Your task to perform on an android device: turn off location Image 0: 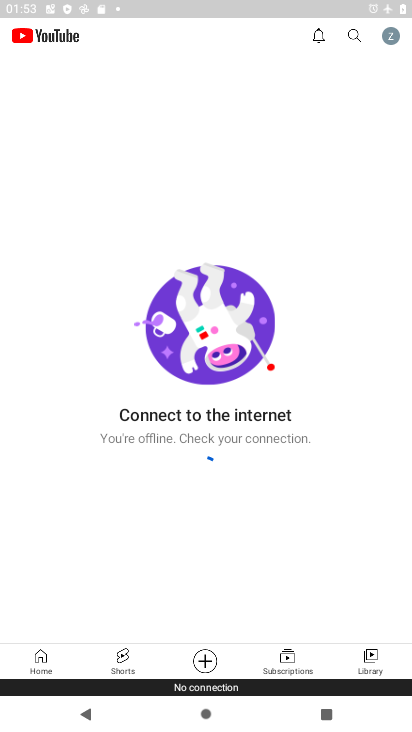
Step 0: press back button
Your task to perform on an android device: turn off location Image 1: 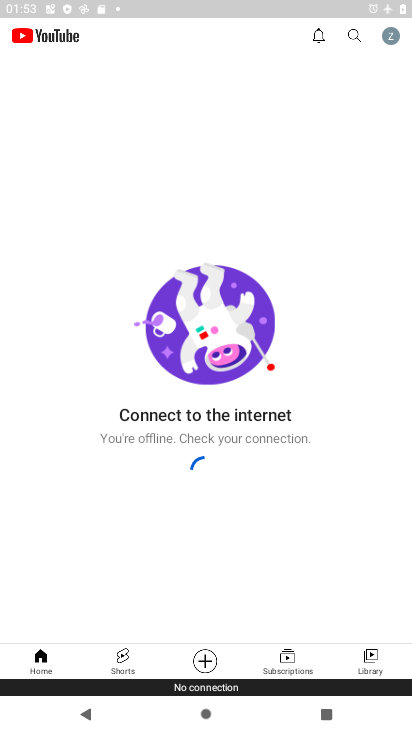
Step 1: press back button
Your task to perform on an android device: turn off location Image 2: 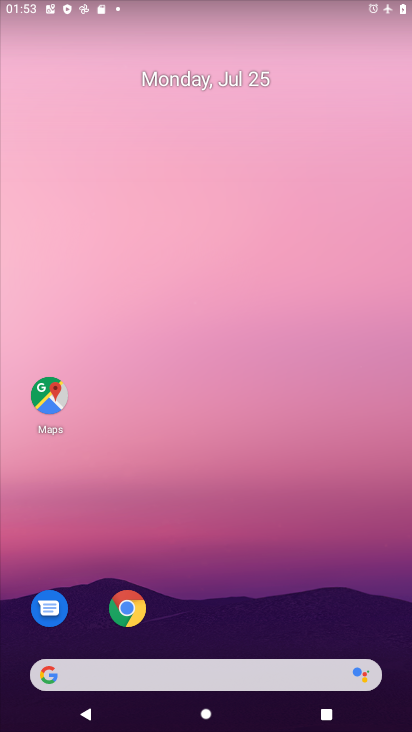
Step 2: drag from (210, 645) to (302, 25)
Your task to perform on an android device: turn off location Image 3: 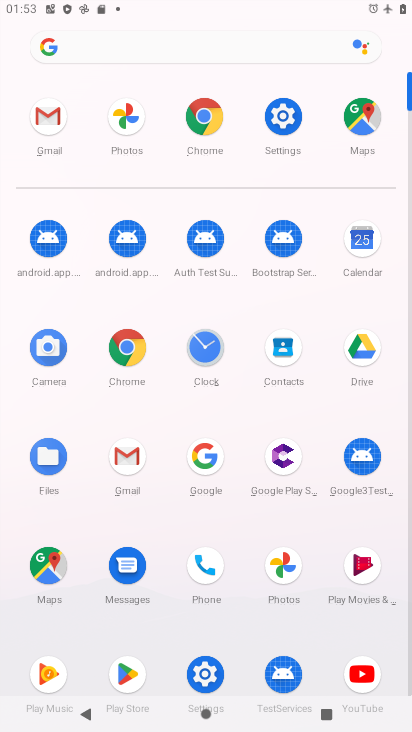
Step 3: click (287, 112)
Your task to perform on an android device: turn off location Image 4: 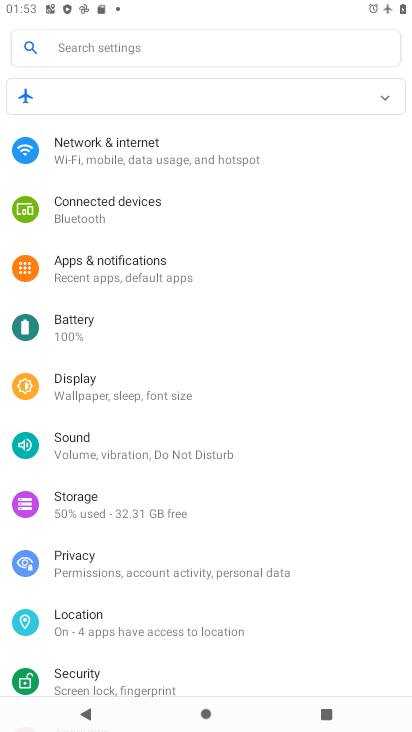
Step 4: click (77, 625)
Your task to perform on an android device: turn off location Image 5: 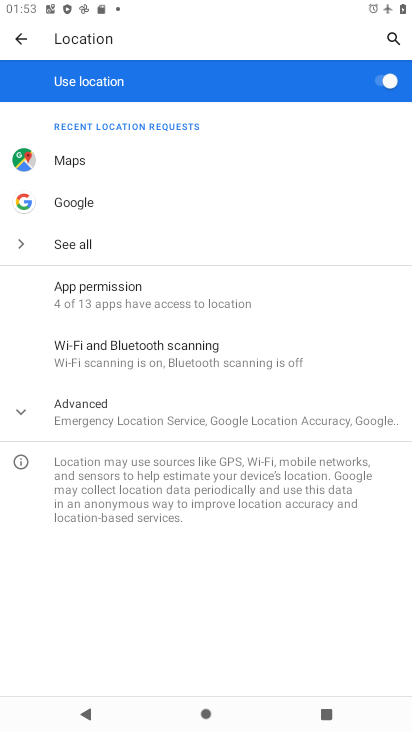
Step 5: click (383, 79)
Your task to perform on an android device: turn off location Image 6: 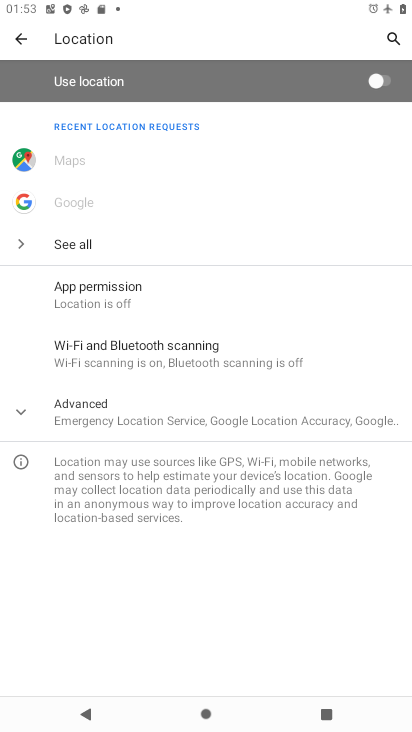
Step 6: task complete